Your task to perform on an android device: Open Reddit.com Image 0: 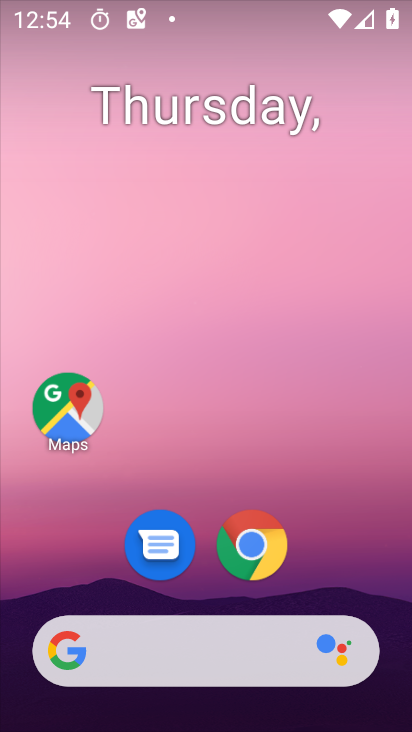
Step 0: click (241, 545)
Your task to perform on an android device: Open Reddit.com Image 1: 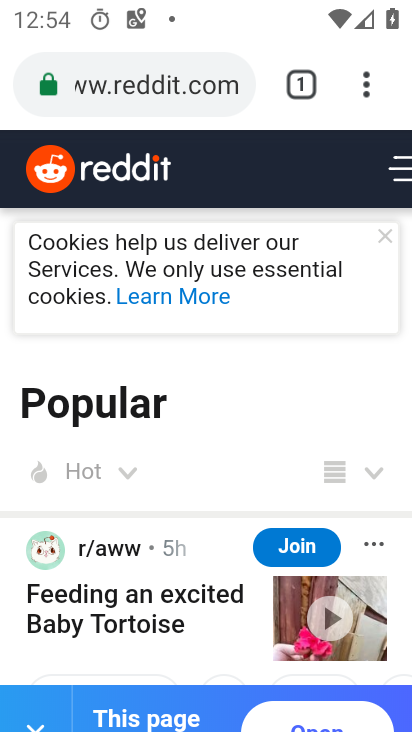
Step 1: click (226, 106)
Your task to perform on an android device: Open Reddit.com Image 2: 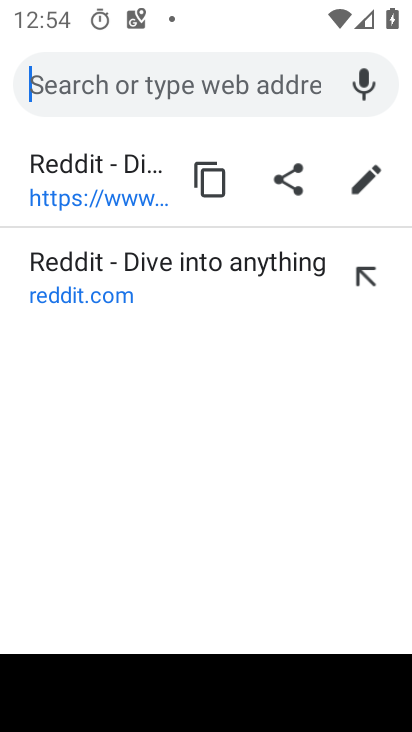
Step 2: click (106, 191)
Your task to perform on an android device: Open Reddit.com Image 3: 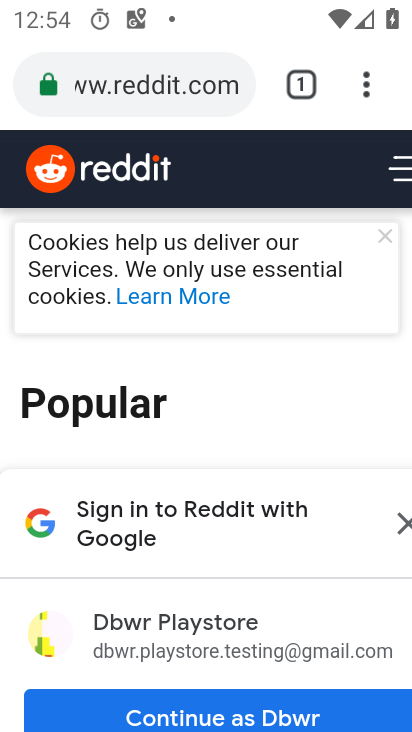
Step 3: task complete